Your task to perform on an android device: see tabs open on other devices in the chrome app Image 0: 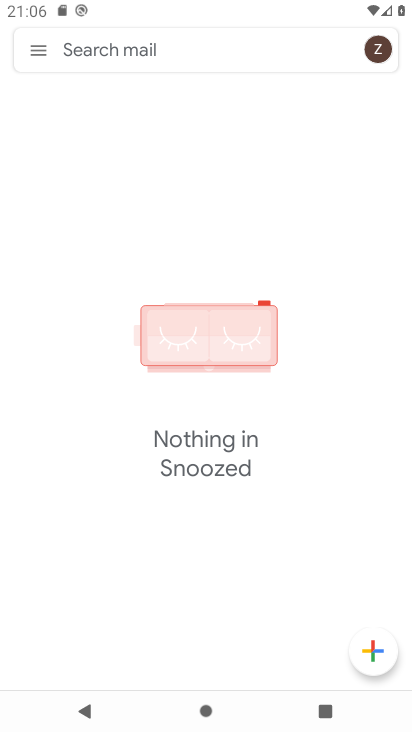
Step 0: press home button
Your task to perform on an android device: see tabs open on other devices in the chrome app Image 1: 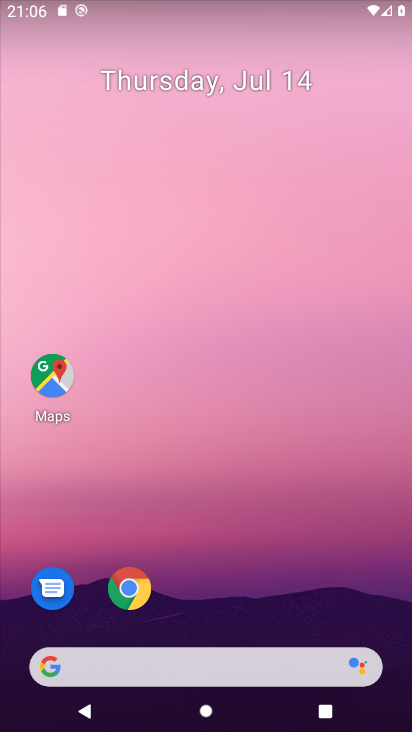
Step 1: drag from (347, 586) to (364, 164)
Your task to perform on an android device: see tabs open on other devices in the chrome app Image 2: 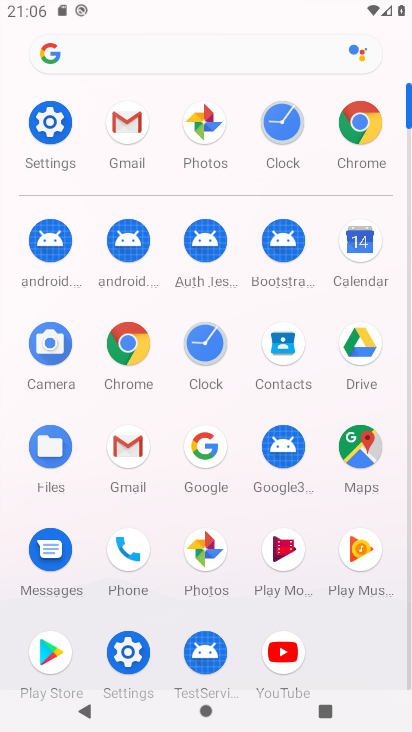
Step 2: click (359, 141)
Your task to perform on an android device: see tabs open on other devices in the chrome app Image 3: 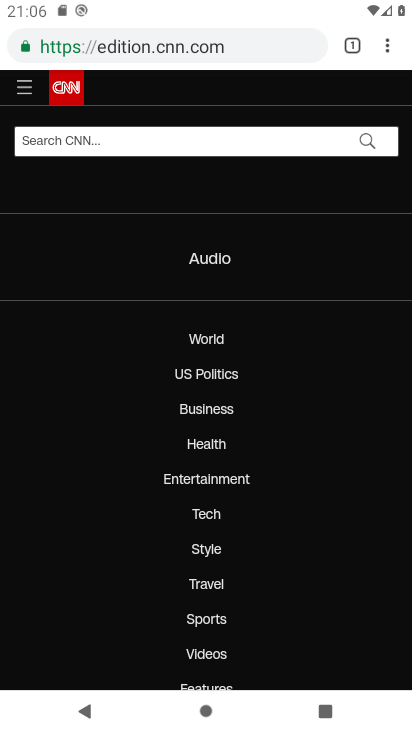
Step 3: click (385, 48)
Your task to perform on an android device: see tabs open on other devices in the chrome app Image 4: 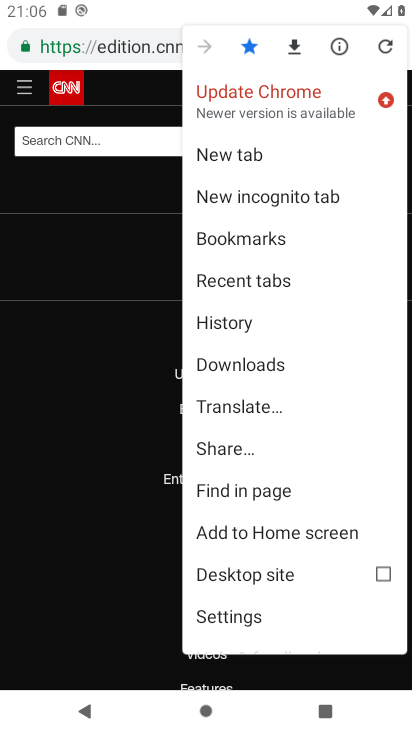
Step 4: click (287, 279)
Your task to perform on an android device: see tabs open on other devices in the chrome app Image 5: 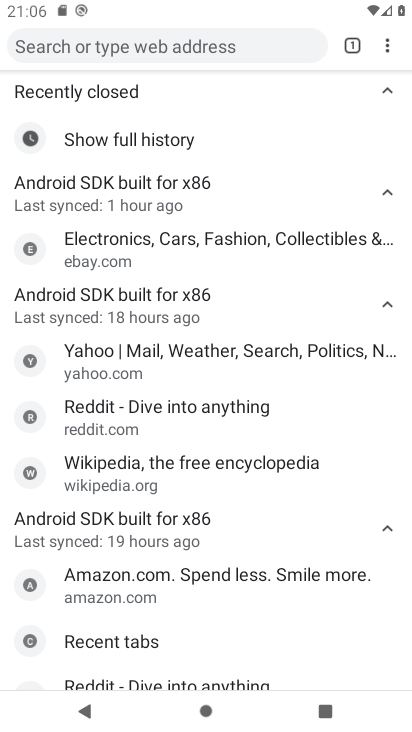
Step 5: click (352, 50)
Your task to perform on an android device: see tabs open on other devices in the chrome app Image 6: 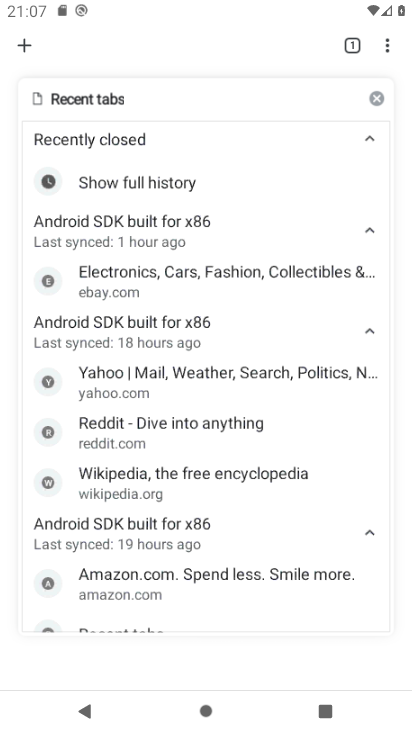
Step 6: task complete